Your task to perform on an android device: Open privacy settings Image 0: 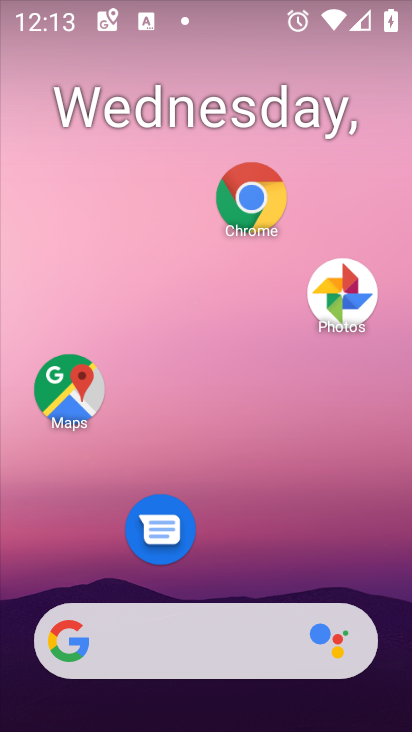
Step 0: drag from (192, 603) to (164, 139)
Your task to perform on an android device: Open privacy settings Image 1: 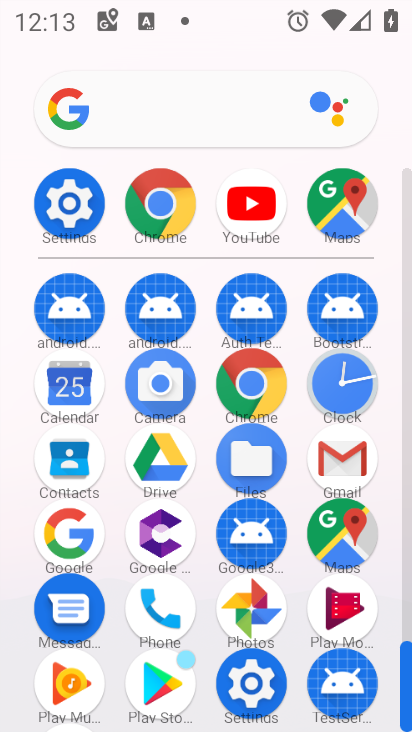
Step 1: drag from (193, 507) to (233, 159)
Your task to perform on an android device: Open privacy settings Image 2: 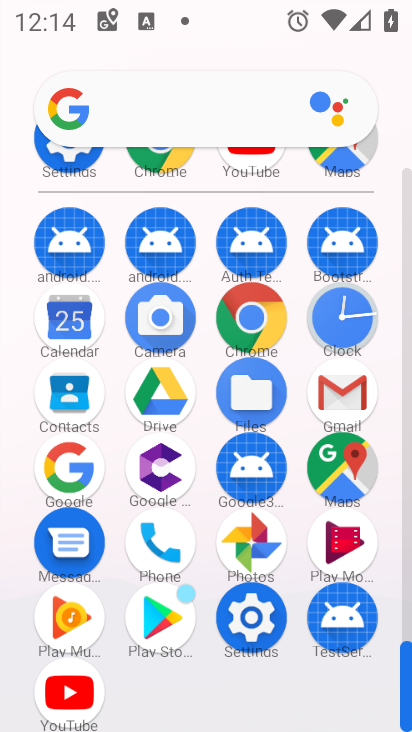
Step 2: click (243, 624)
Your task to perform on an android device: Open privacy settings Image 3: 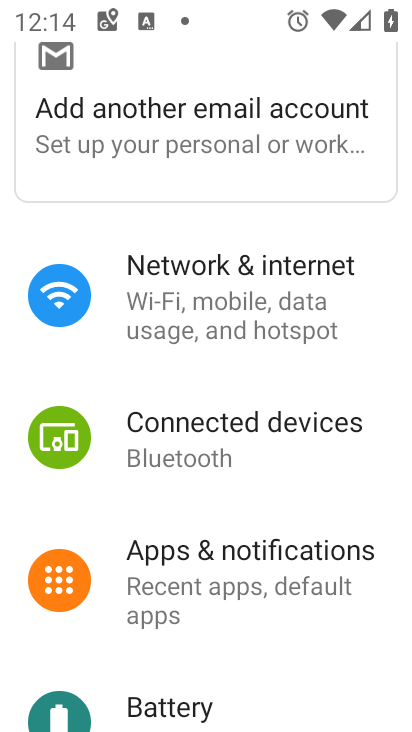
Step 3: drag from (177, 479) to (196, 187)
Your task to perform on an android device: Open privacy settings Image 4: 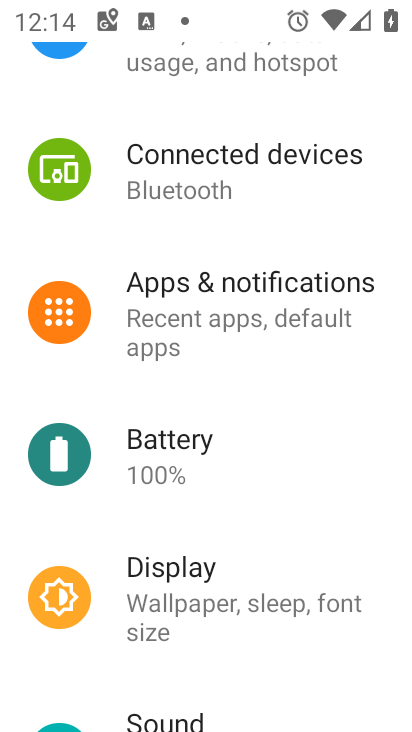
Step 4: drag from (188, 592) to (218, 224)
Your task to perform on an android device: Open privacy settings Image 5: 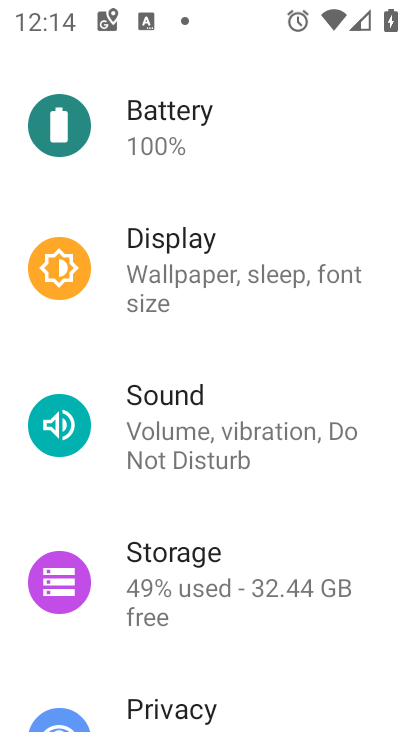
Step 5: drag from (231, 477) to (287, 254)
Your task to perform on an android device: Open privacy settings Image 6: 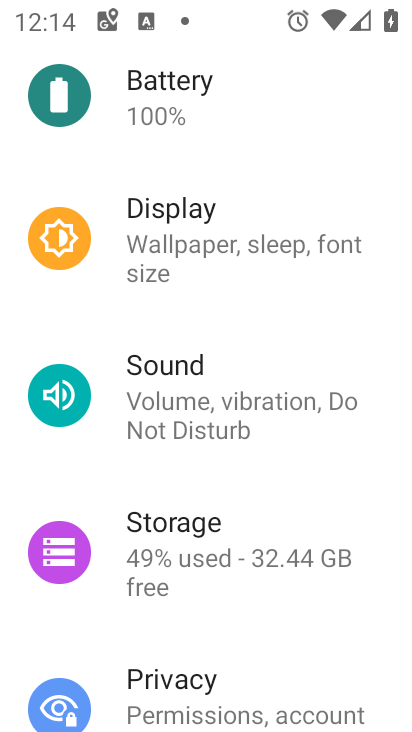
Step 6: click (187, 685)
Your task to perform on an android device: Open privacy settings Image 7: 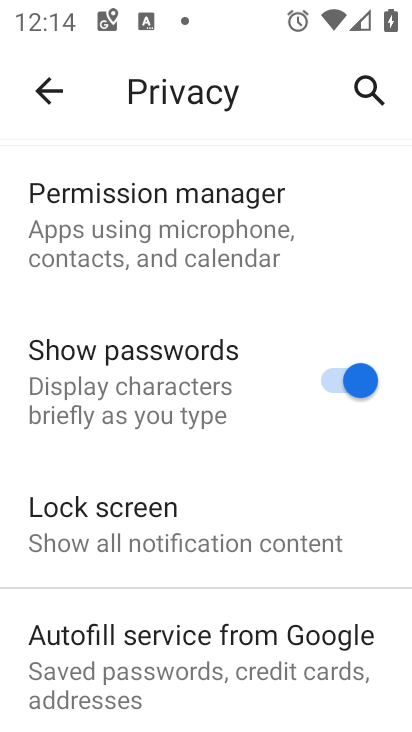
Step 7: task complete